Your task to perform on an android device: uninstall "Skype" Image 0: 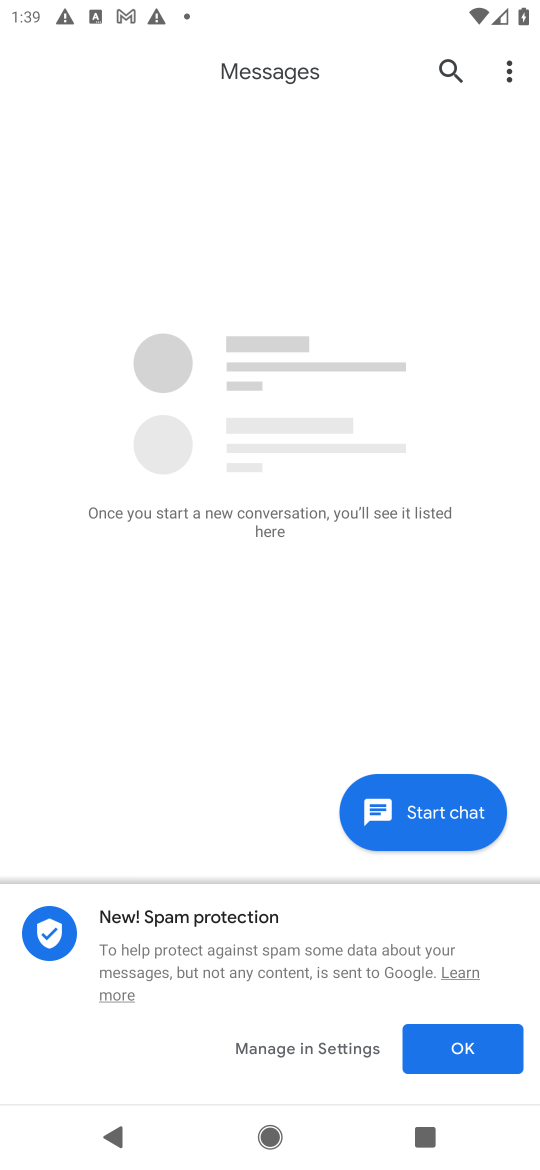
Step 0: press home button
Your task to perform on an android device: uninstall "Skype" Image 1: 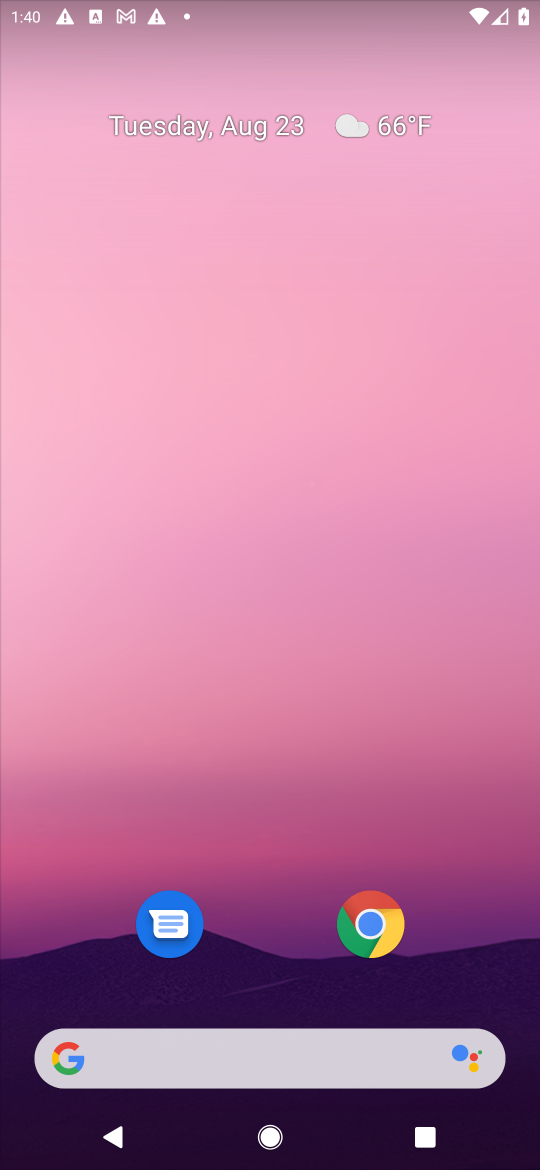
Step 1: drag from (451, 943) to (435, 123)
Your task to perform on an android device: uninstall "Skype" Image 2: 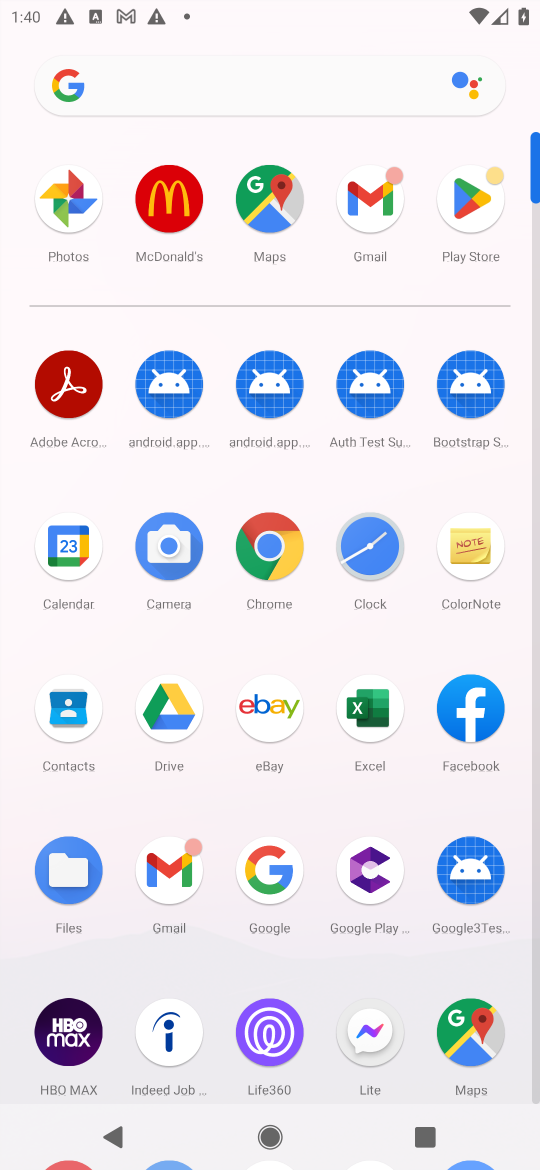
Step 2: click (475, 200)
Your task to perform on an android device: uninstall "Skype" Image 3: 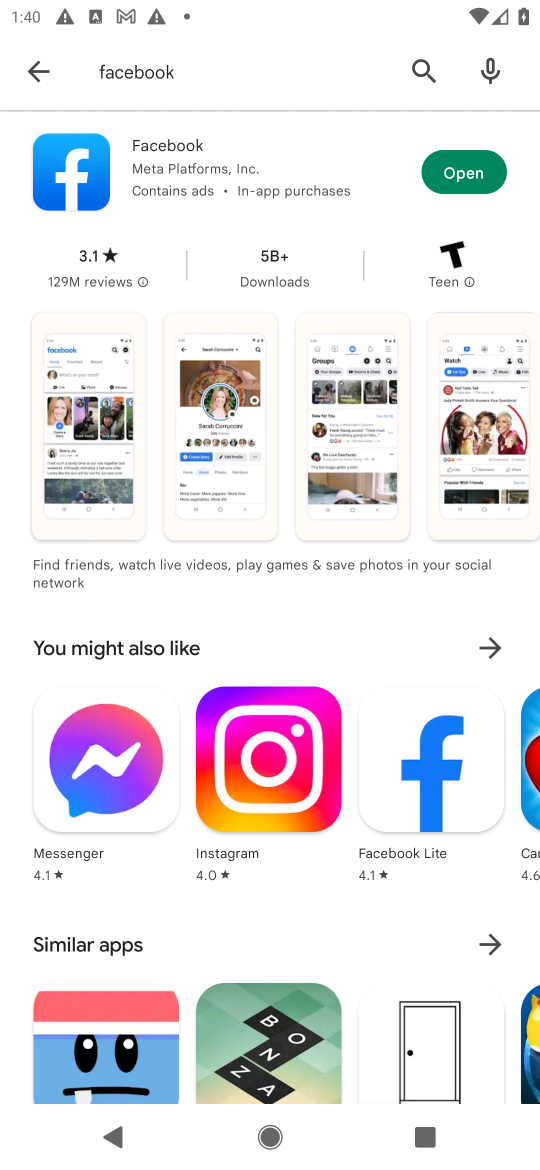
Step 3: press back button
Your task to perform on an android device: uninstall "Skype" Image 4: 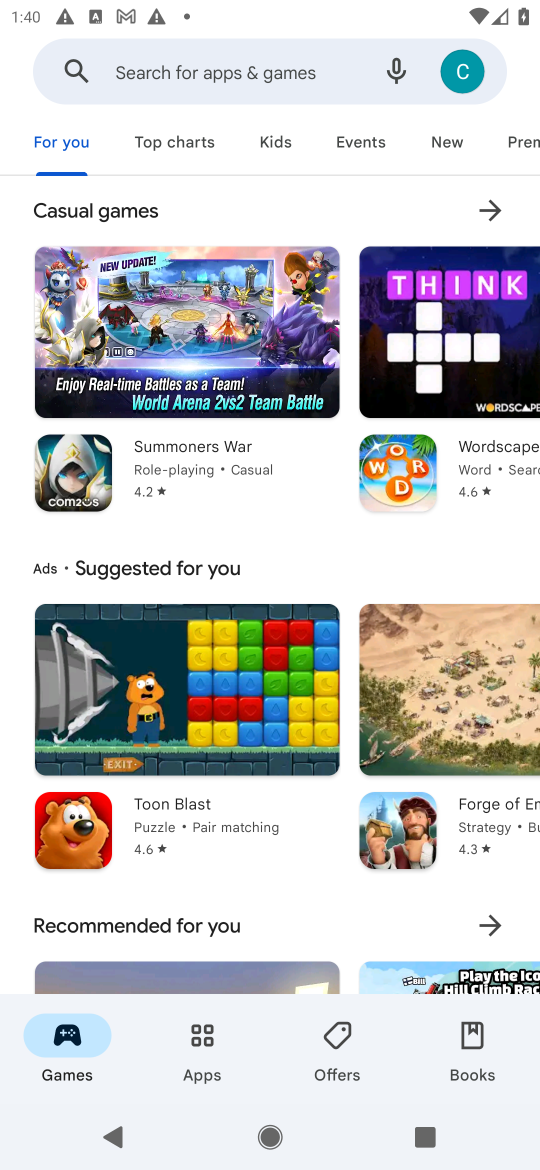
Step 4: click (272, 72)
Your task to perform on an android device: uninstall "Skype" Image 5: 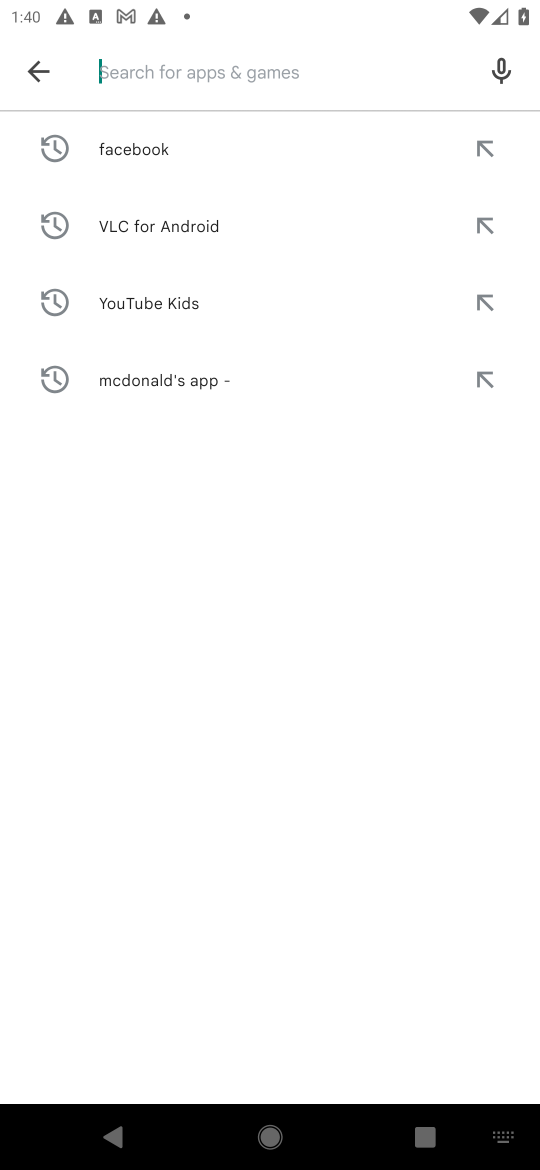
Step 5: press enter
Your task to perform on an android device: uninstall "Skype" Image 6: 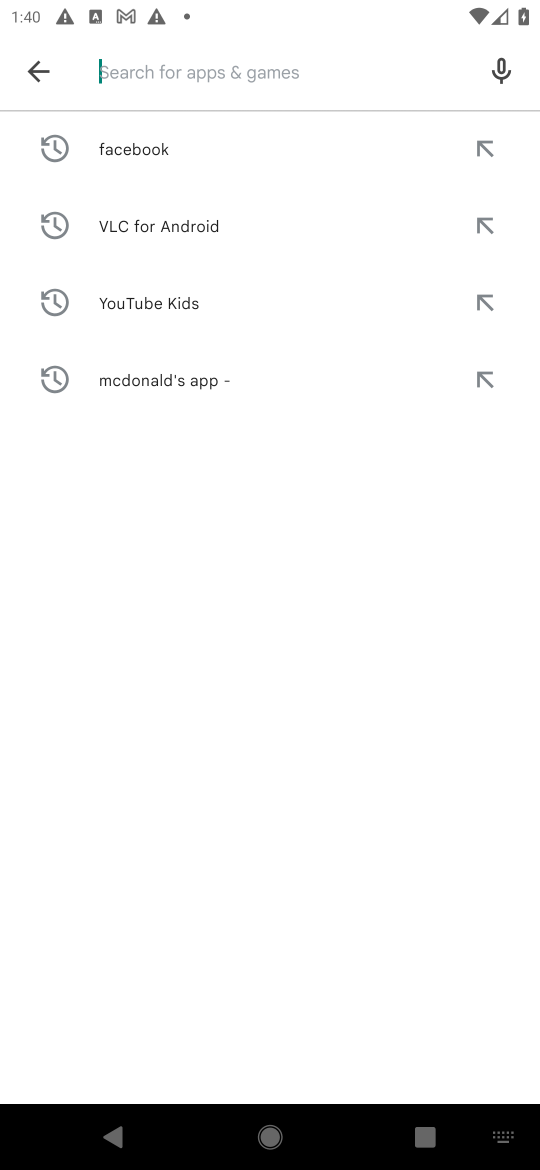
Step 6: type "skype"
Your task to perform on an android device: uninstall "Skype" Image 7: 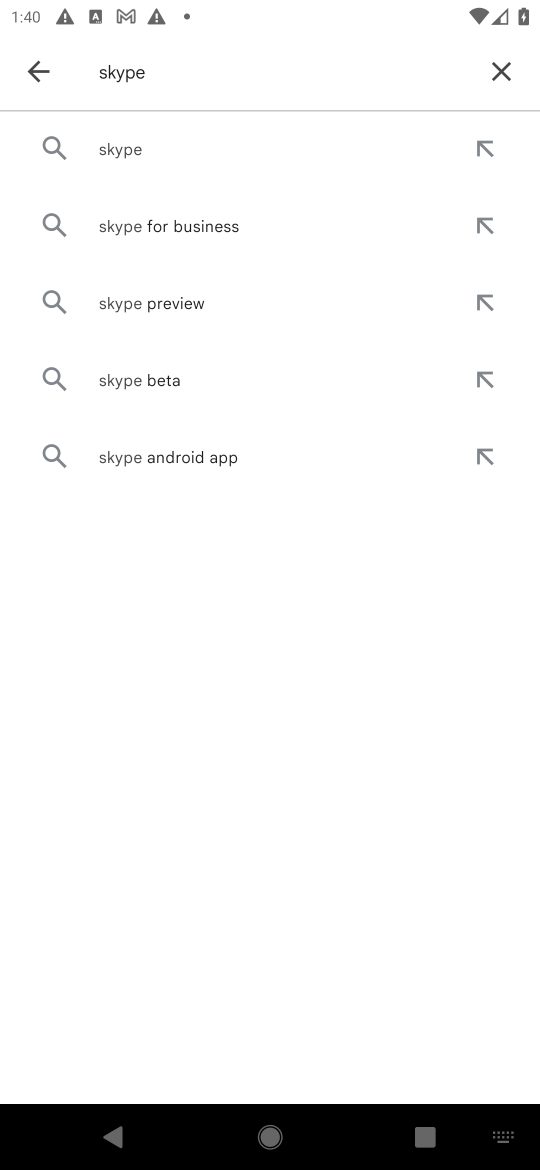
Step 7: click (144, 141)
Your task to perform on an android device: uninstall "Skype" Image 8: 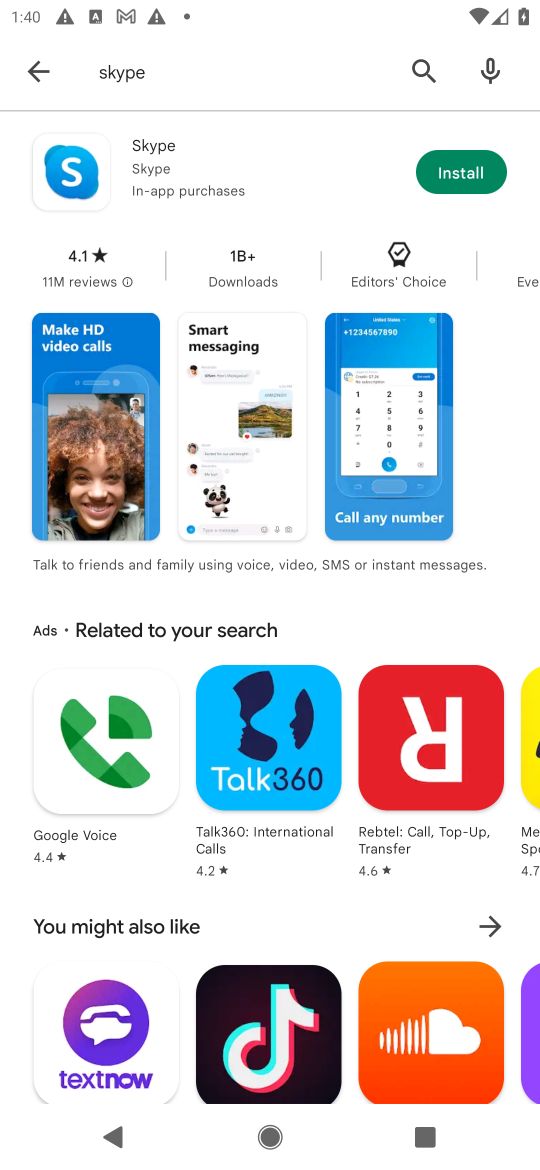
Step 8: task complete